Your task to perform on an android device: delete a single message in the gmail app Image 0: 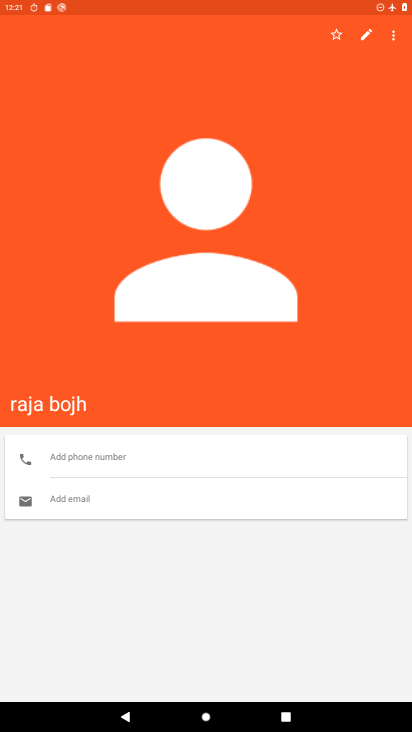
Step 0: press home button
Your task to perform on an android device: delete a single message in the gmail app Image 1: 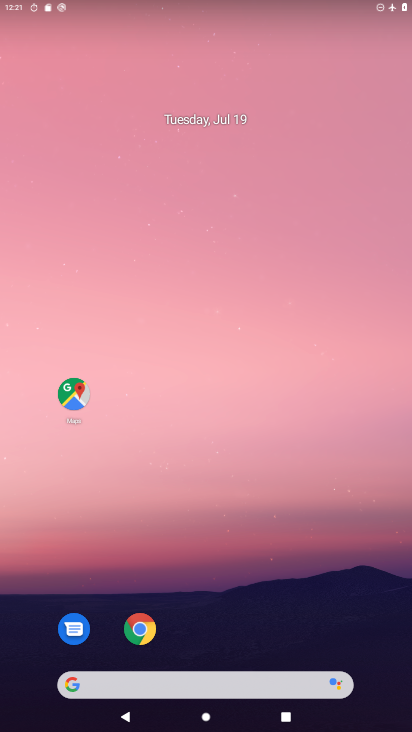
Step 1: drag from (269, 595) to (193, 31)
Your task to perform on an android device: delete a single message in the gmail app Image 2: 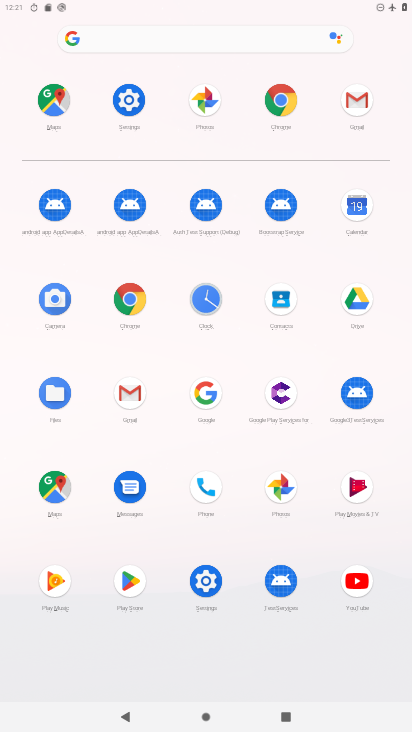
Step 2: click (361, 101)
Your task to perform on an android device: delete a single message in the gmail app Image 3: 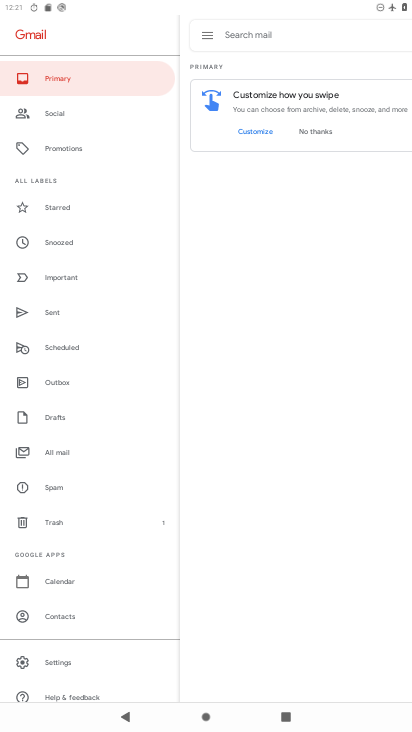
Step 3: click (53, 457)
Your task to perform on an android device: delete a single message in the gmail app Image 4: 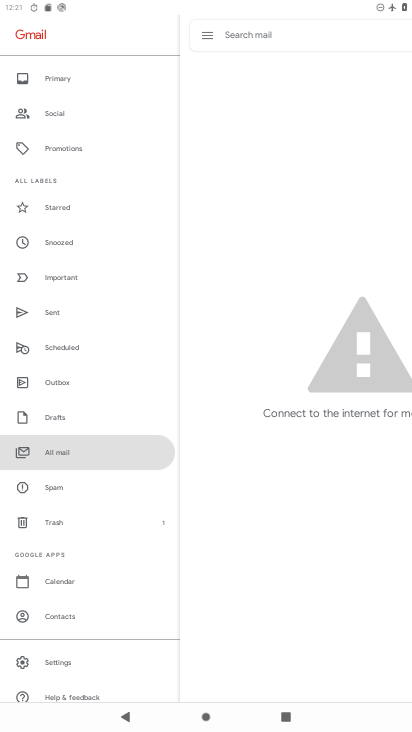
Step 4: task complete